Your task to perform on an android device: Do I have any events this weekend? Image 0: 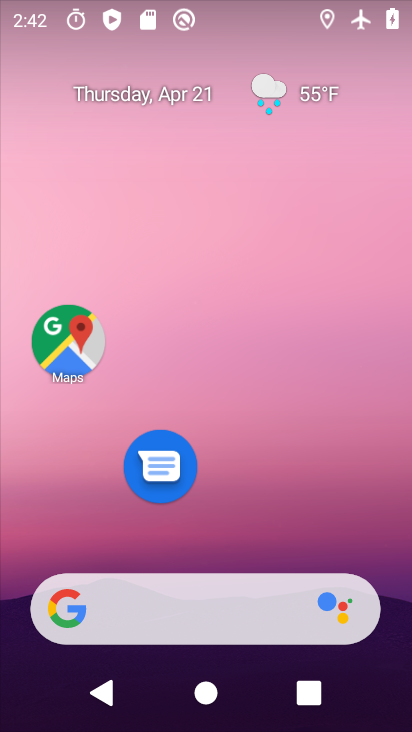
Step 0: drag from (338, 579) to (332, 133)
Your task to perform on an android device: Do I have any events this weekend? Image 1: 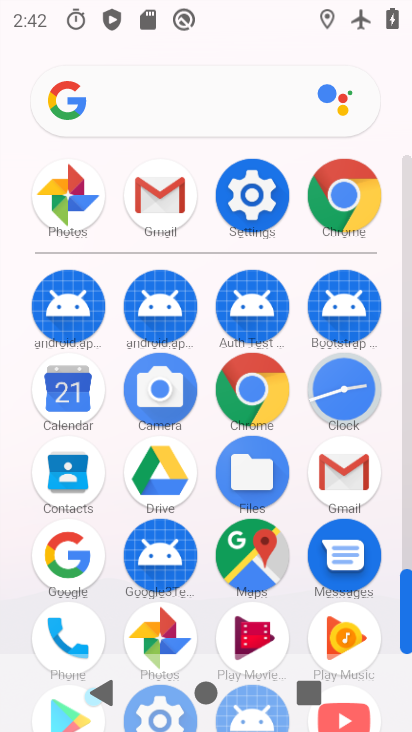
Step 1: click (79, 398)
Your task to perform on an android device: Do I have any events this weekend? Image 2: 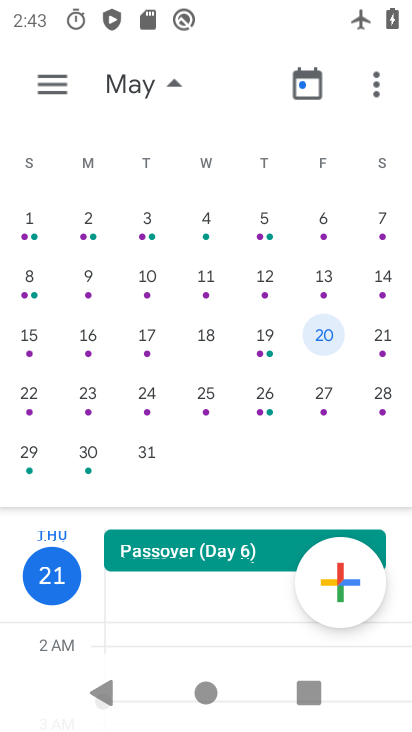
Step 2: drag from (52, 328) to (403, 342)
Your task to perform on an android device: Do I have any events this weekend? Image 3: 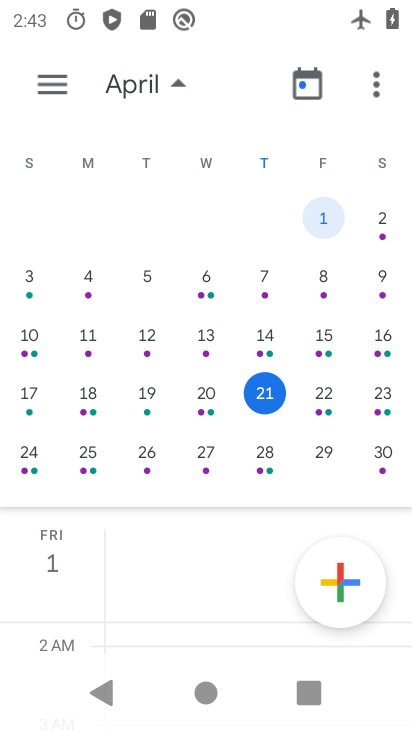
Step 3: click (382, 390)
Your task to perform on an android device: Do I have any events this weekend? Image 4: 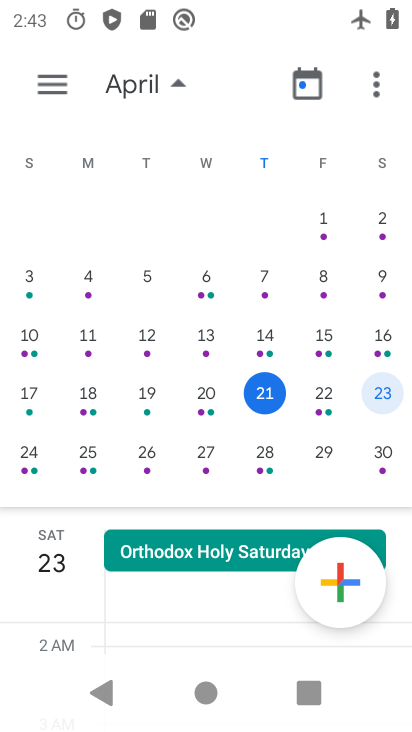
Step 4: task complete